Your task to perform on an android device: change alarm snooze length Image 0: 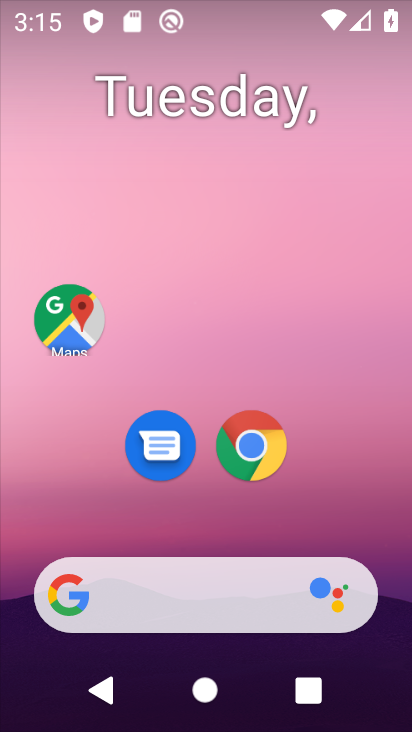
Step 0: drag from (194, 549) to (287, 132)
Your task to perform on an android device: change alarm snooze length Image 1: 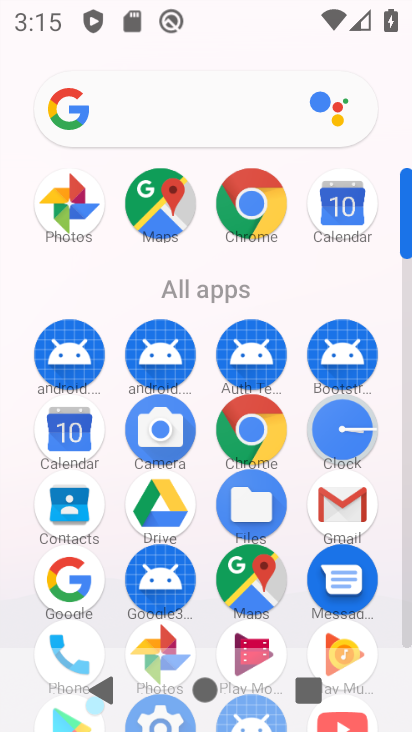
Step 1: click (338, 413)
Your task to perform on an android device: change alarm snooze length Image 2: 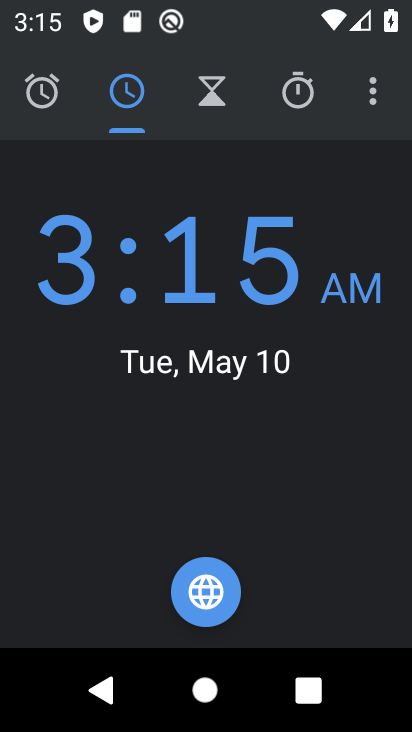
Step 2: click (387, 90)
Your task to perform on an android device: change alarm snooze length Image 3: 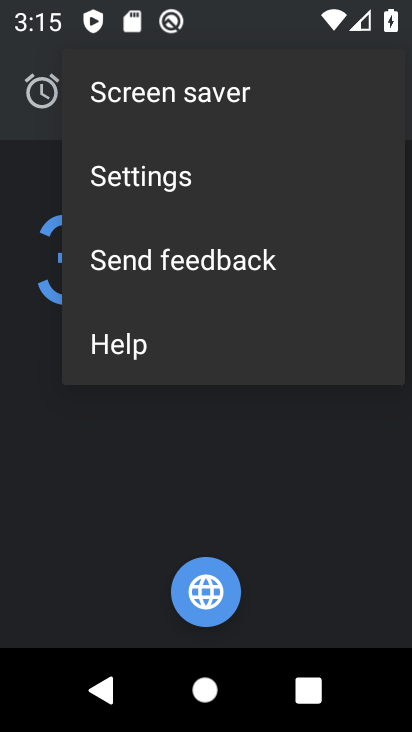
Step 3: click (163, 169)
Your task to perform on an android device: change alarm snooze length Image 4: 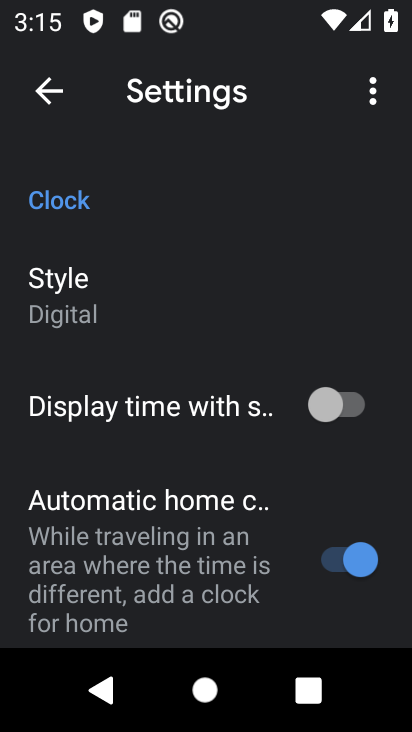
Step 4: drag from (194, 613) to (384, 10)
Your task to perform on an android device: change alarm snooze length Image 5: 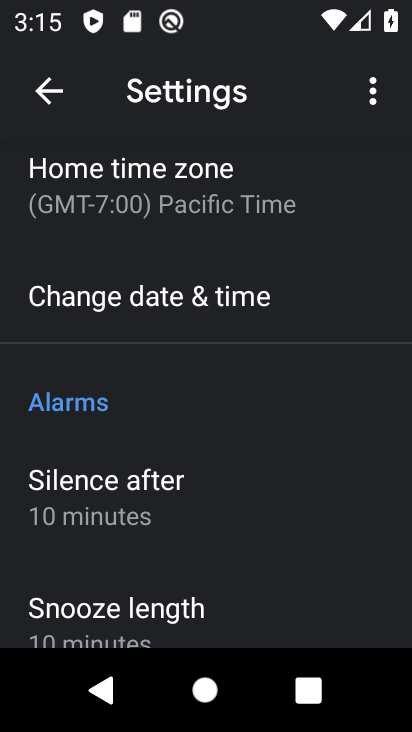
Step 5: click (145, 603)
Your task to perform on an android device: change alarm snooze length Image 6: 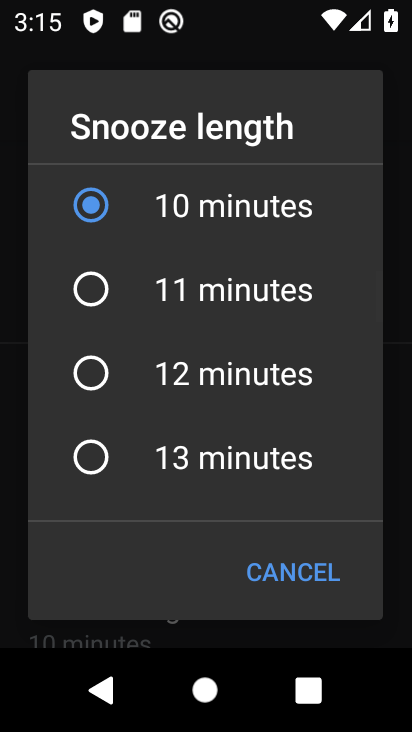
Step 6: click (95, 278)
Your task to perform on an android device: change alarm snooze length Image 7: 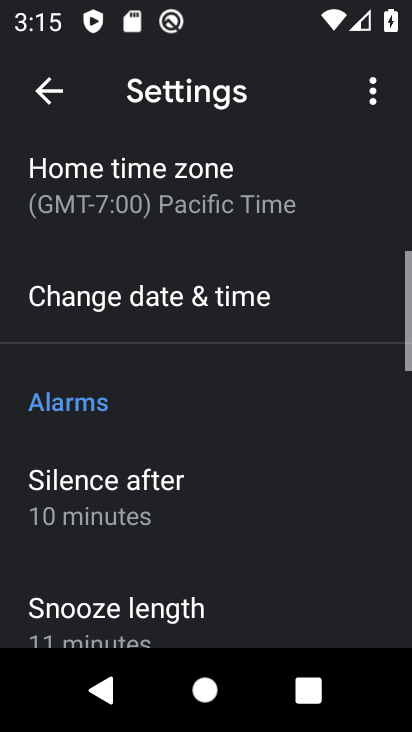
Step 7: task complete